Your task to perform on an android device: Open Yahoo.com Image 0: 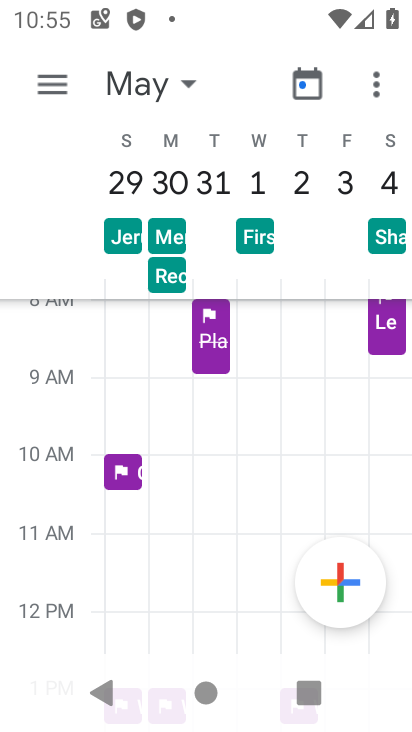
Step 0: press home button
Your task to perform on an android device: Open Yahoo.com Image 1: 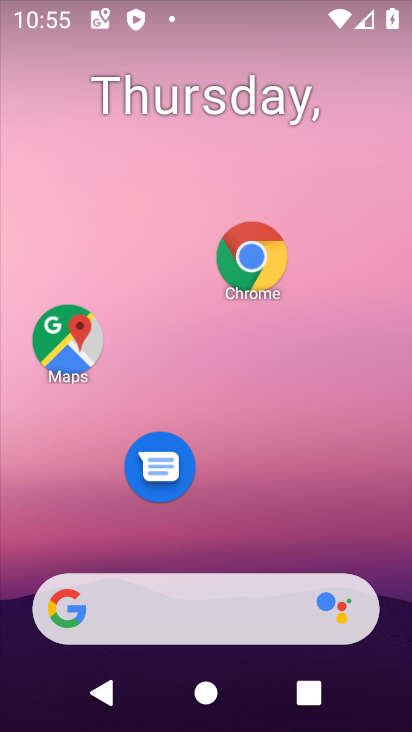
Step 1: click (256, 257)
Your task to perform on an android device: Open Yahoo.com Image 2: 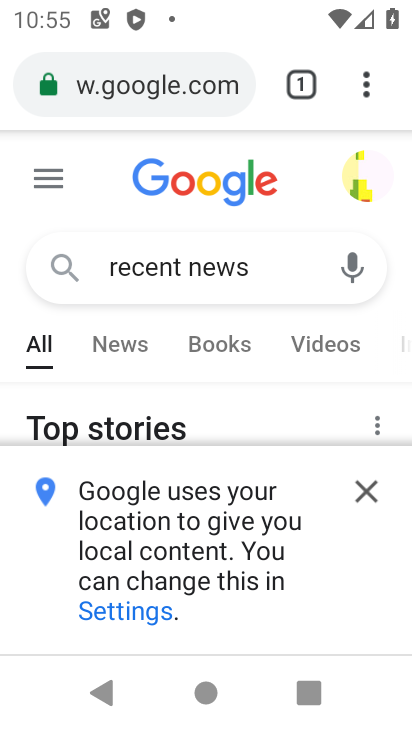
Step 2: click (193, 87)
Your task to perform on an android device: Open Yahoo.com Image 3: 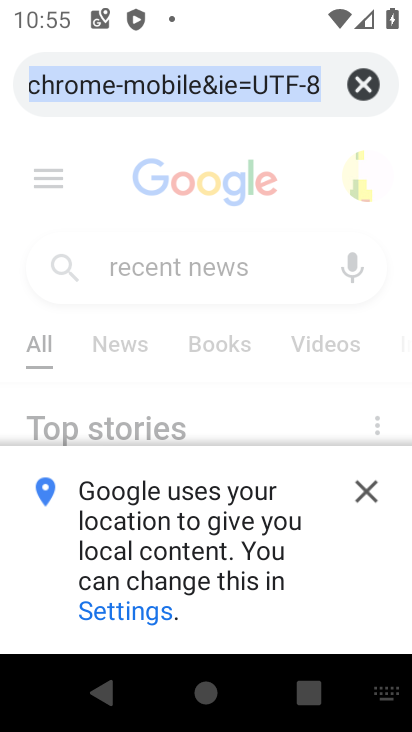
Step 3: type "yahoo.com"
Your task to perform on an android device: Open Yahoo.com Image 4: 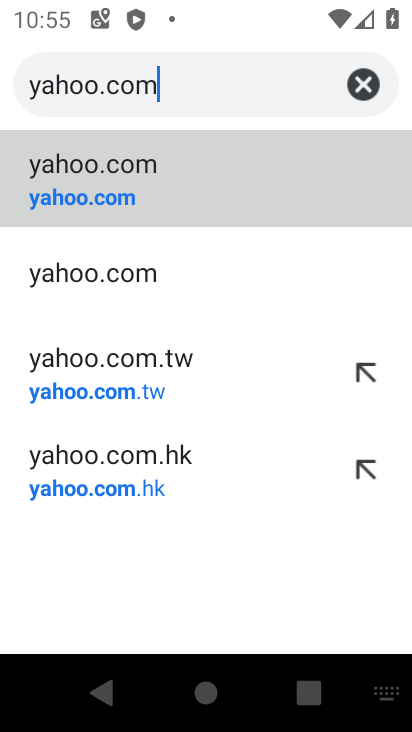
Step 4: click (221, 189)
Your task to perform on an android device: Open Yahoo.com Image 5: 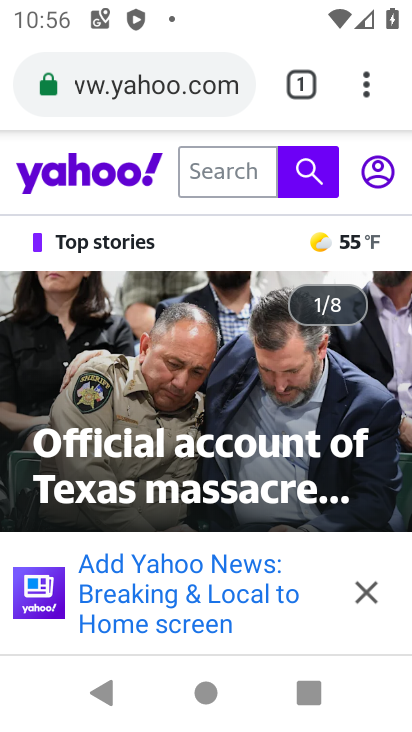
Step 5: task complete